Your task to perform on an android device: Go to location settings Image 0: 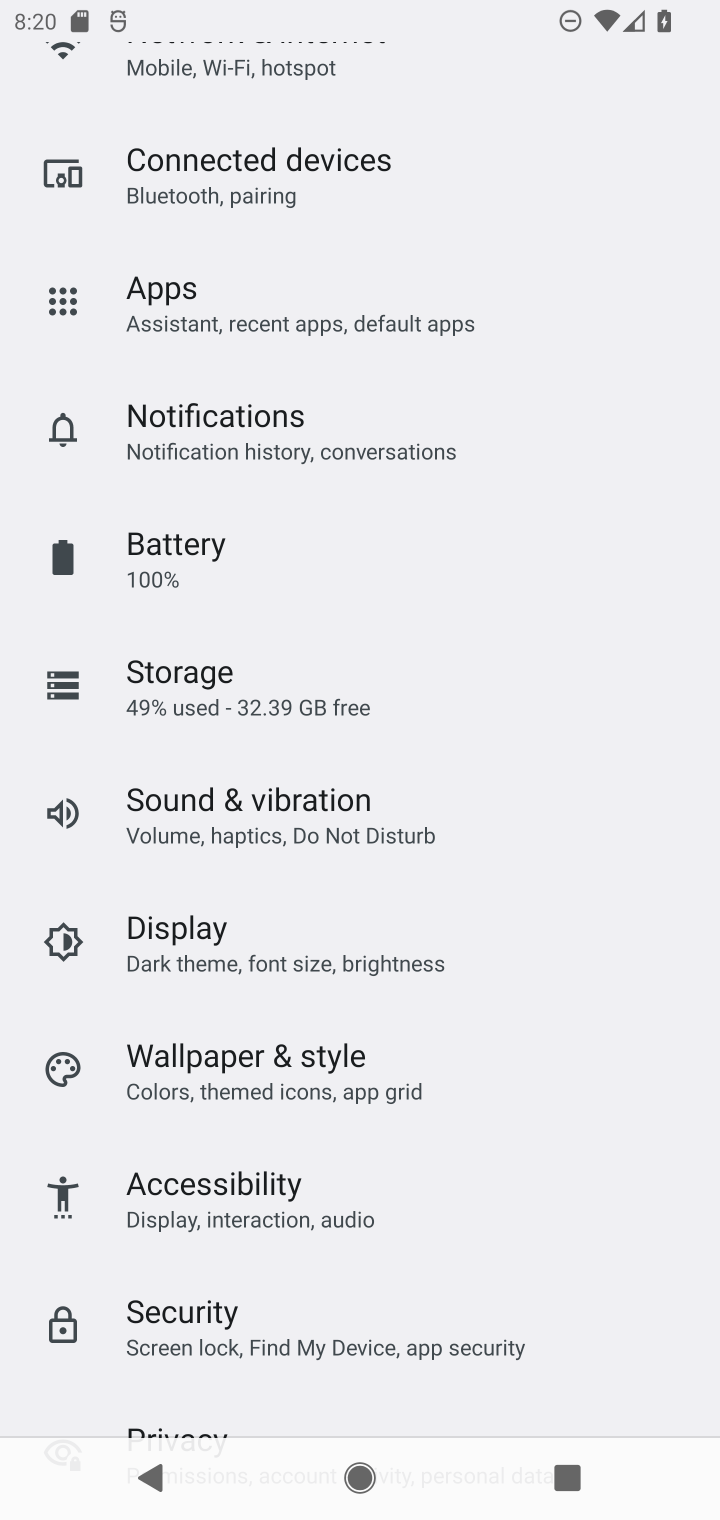
Step 0: drag from (259, 648) to (239, 1036)
Your task to perform on an android device: Go to location settings Image 1: 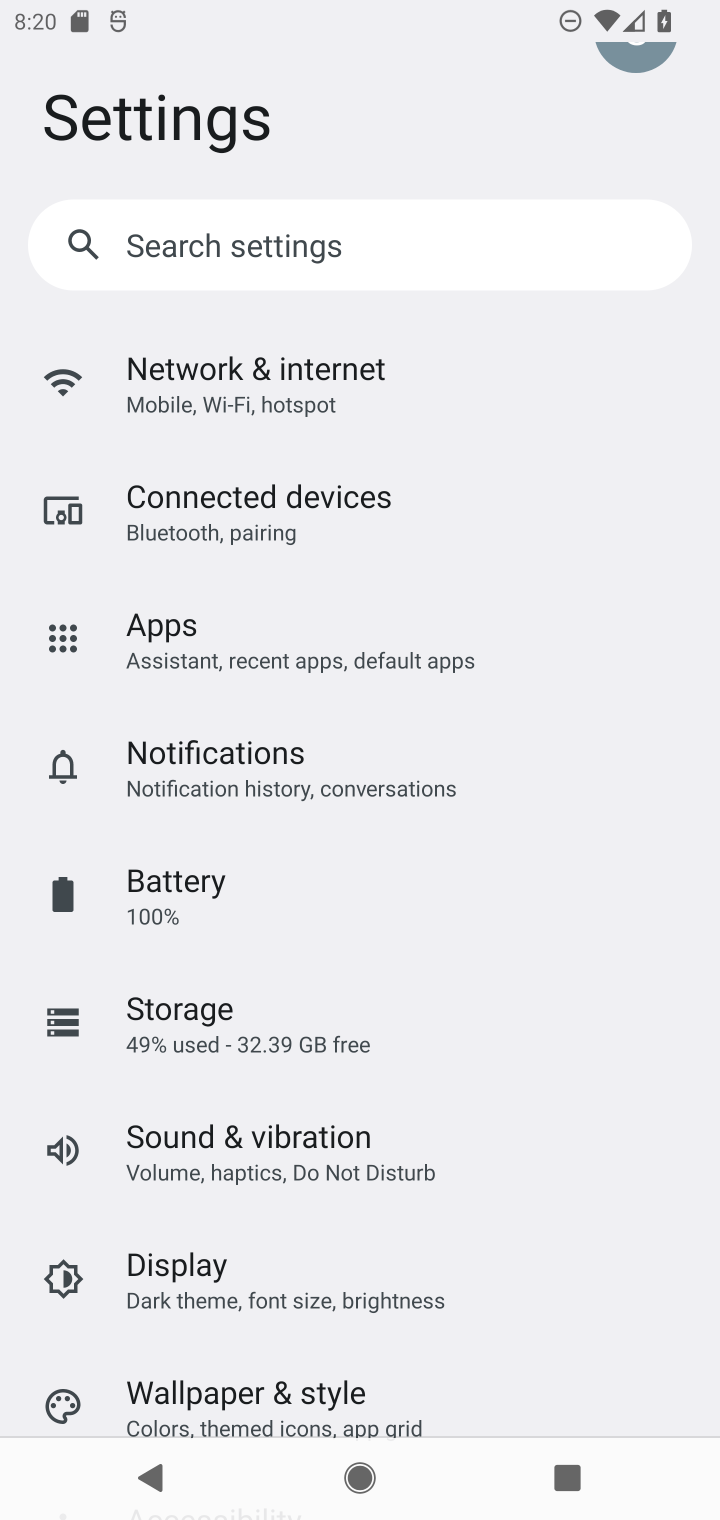
Step 1: task complete